Your task to perform on an android device: Go to privacy settings Image 0: 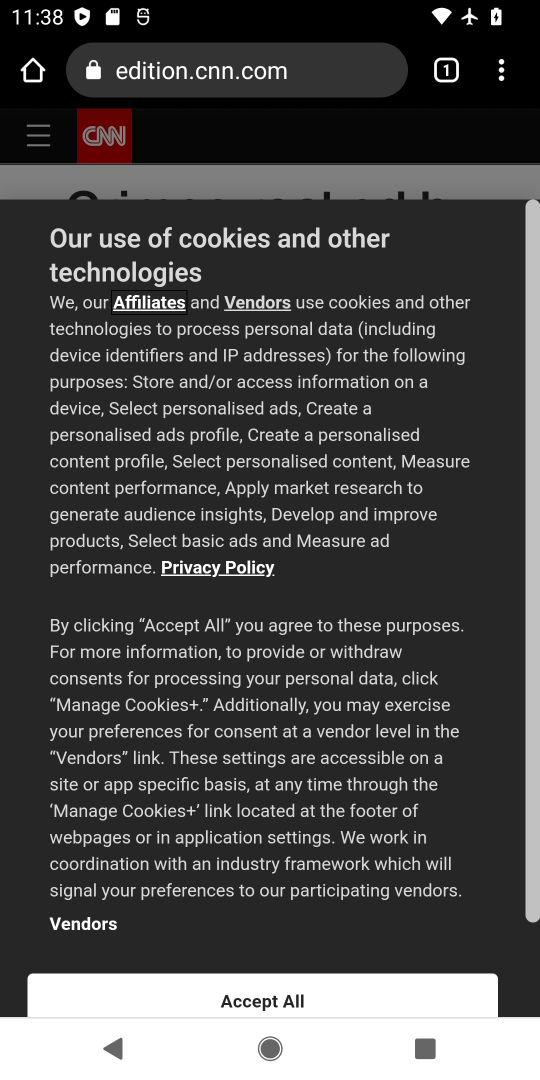
Step 0: press home button
Your task to perform on an android device: Go to privacy settings Image 1: 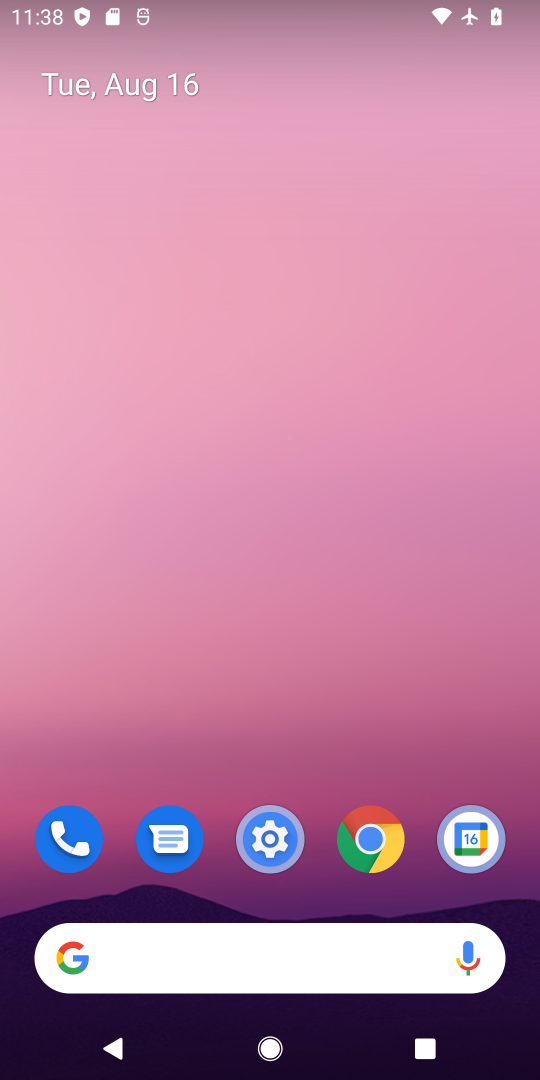
Step 1: click (279, 844)
Your task to perform on an android device: Go to privacy settings Image 2: 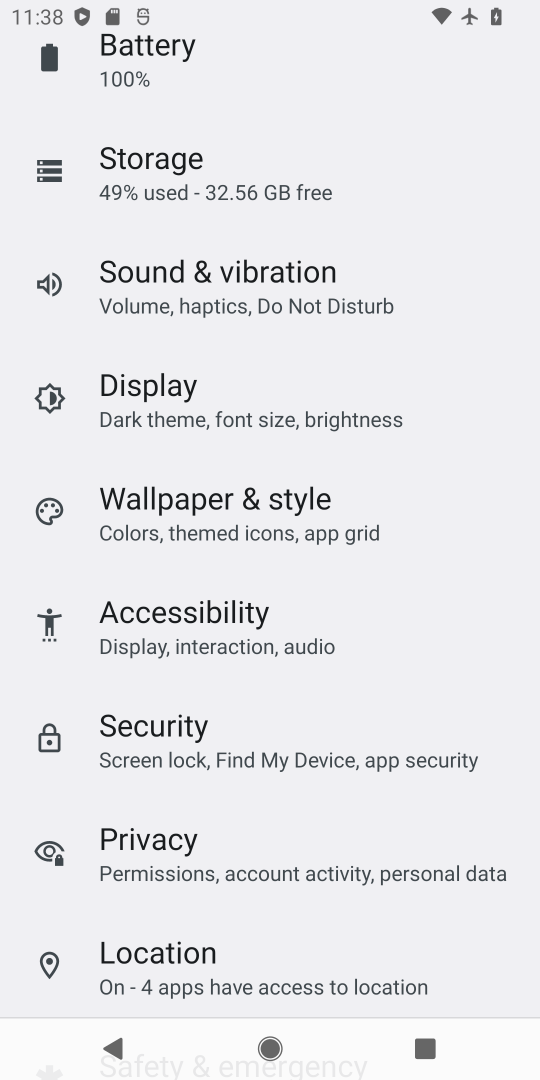
Step 2: click (193, 870)
Your task to perform on an android device: Go to privacy settings Image 3: 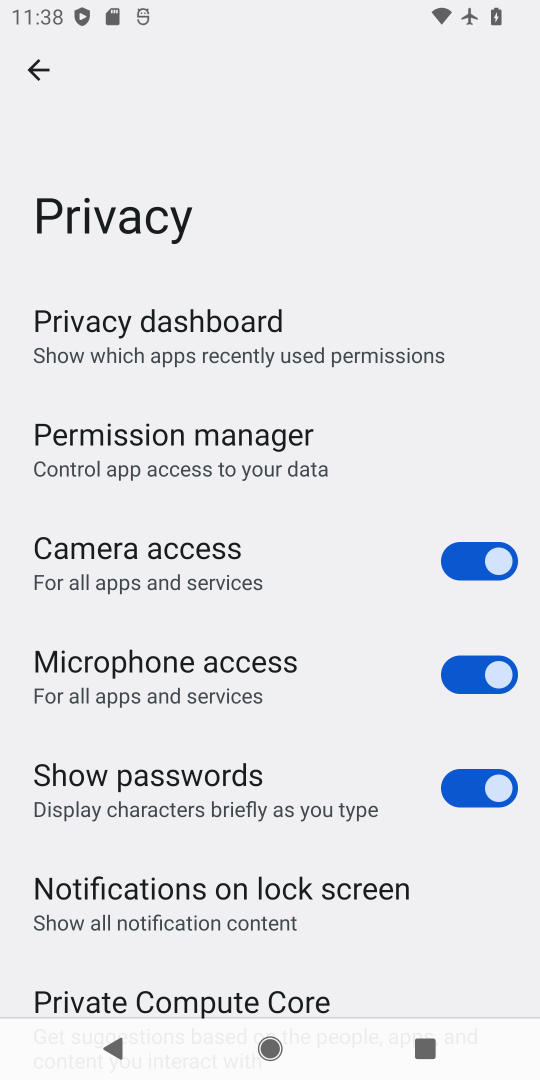
Step 3: task complete